Your task to perform on an android device: Search for Italian restaurants on Maps Image 0: 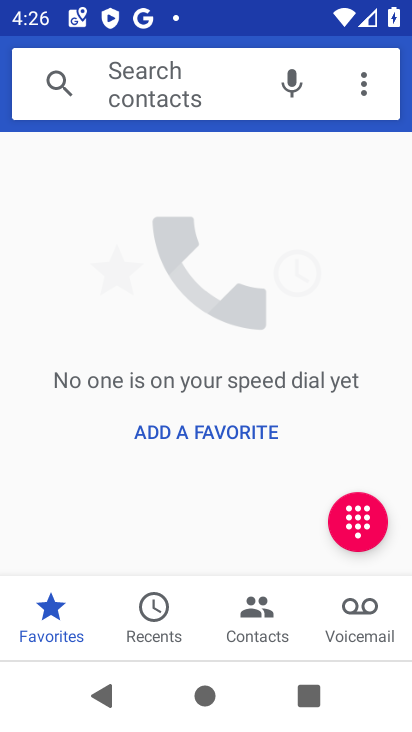
Step 0: press back button
Your task to perform on an android device: Search for Italian restaurants on Maps Image 1: 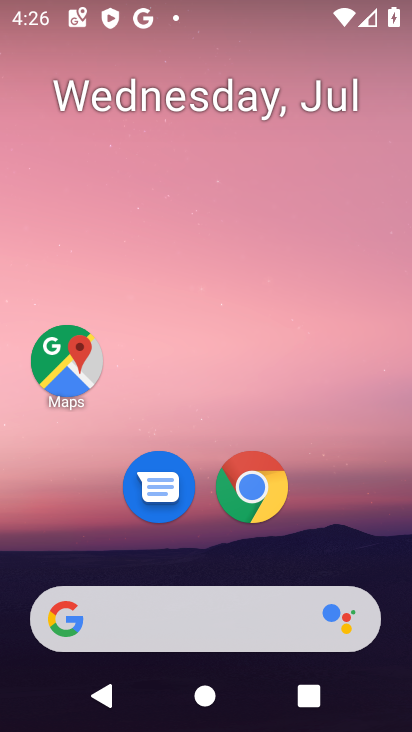
Step 1: click (49, 361)
Your task to perform on an android device: Search for Italian restaurants on Maps Image 2: 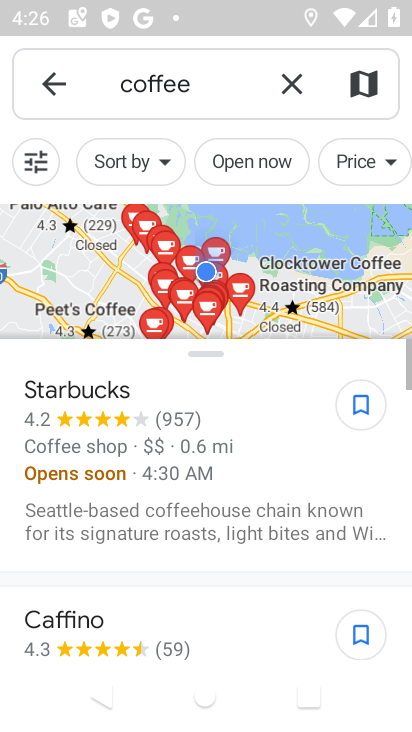
Step 2: click (283, 85)
Your task to perform on an android device: Search for Italian restaurants on Maps Image 3: 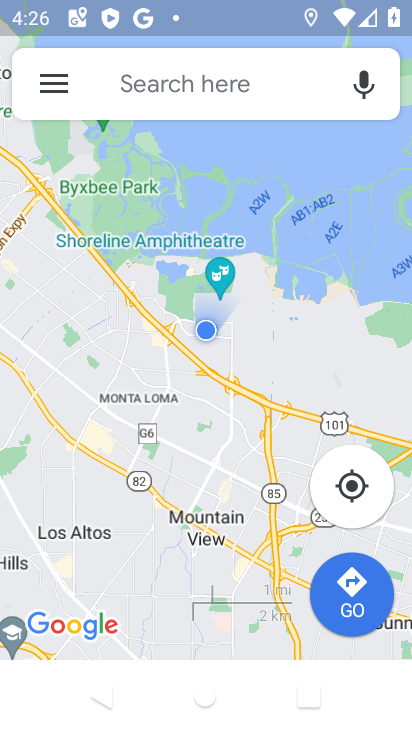
Step 3: click (134, 85)
Your task to perform on an android device: Search for Italian restaurants on Maps Image 4: 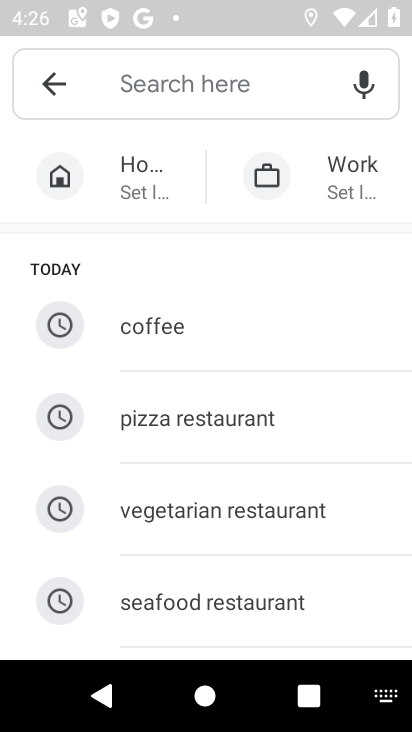
Step 4: drag from (194, 567) to (262, 248)
Your task to perform on an android device: Search for Italian restaurants on Maps Image 5: 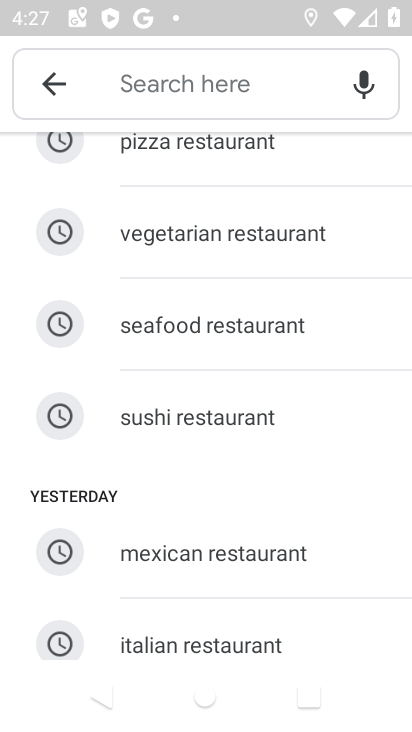
Step 5: click (152, 639)
Your task to perform on an android device: Search for Italian restaurants on Maps Image 6: 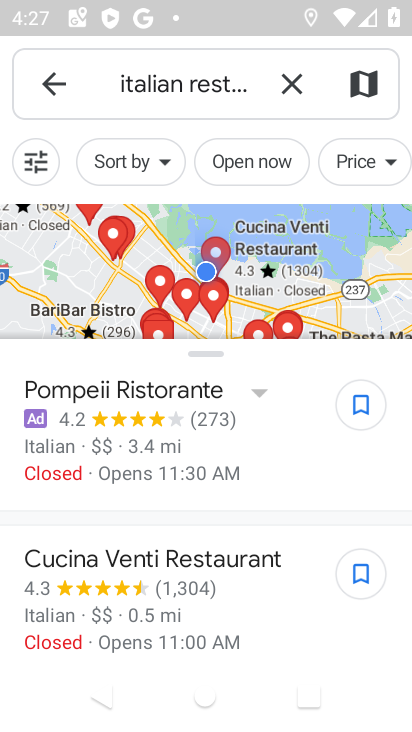
Step 6: task complete